Your task to perform on an android device: delete a single message in the gmail app Image 0: 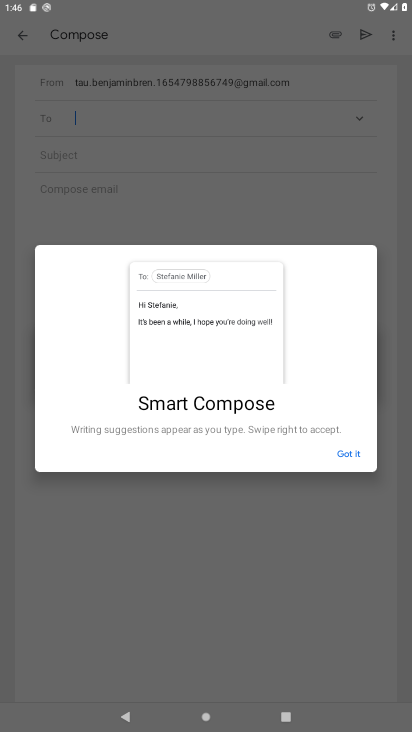
Step 0: press home button
Your task to perform on an android device: delete a single message in the gmail app Image 1: 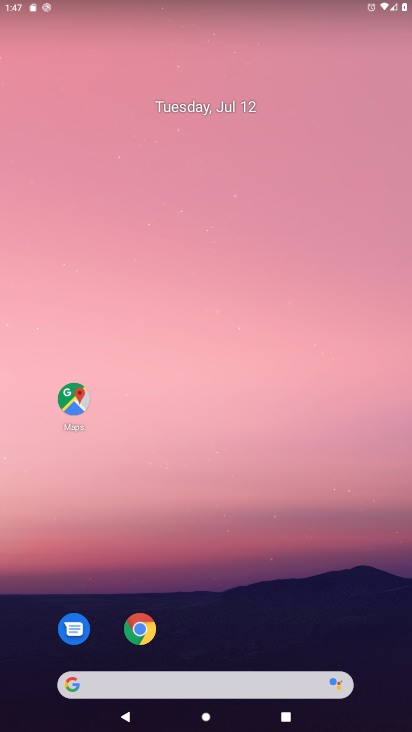
Step 1: drag from (159, 626) to (232, 131)
Your task to perform on an android device: delete a single message in the gmail app Image 2: 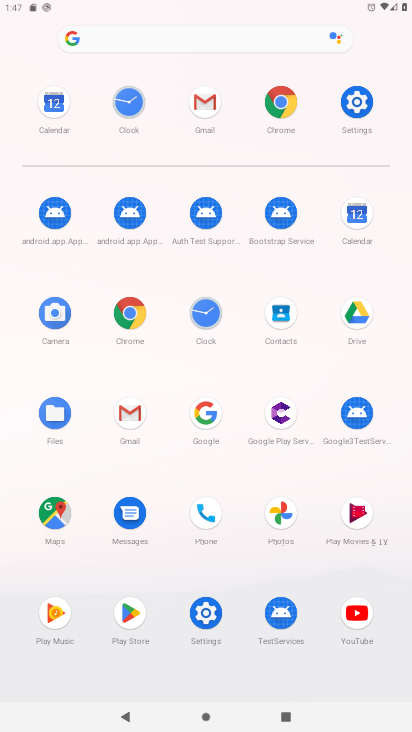
Step 2: click (124, 410)
Your task to perform on an android device: delete a single message in the gmail app Image 3: 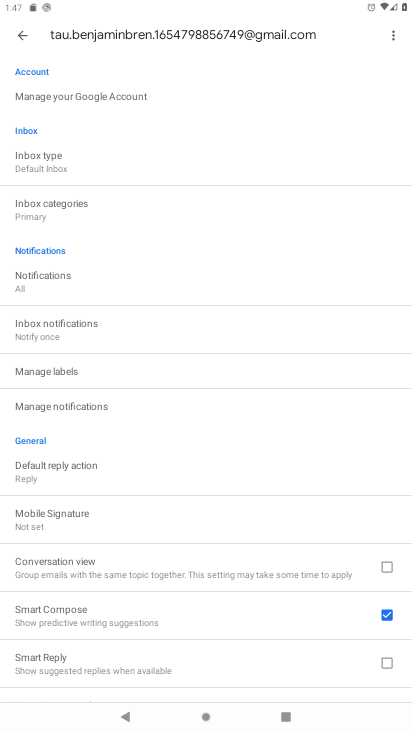
Step 3: press back button
Your task to perform on an android device: delete a single message in the gmail app Image 4: 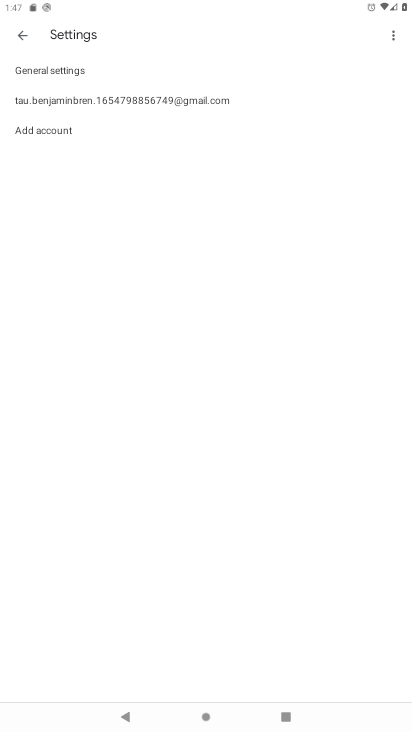
Step 4: press back button
Your task to perform on an android device: delete a single message in the gmail app Image 5: 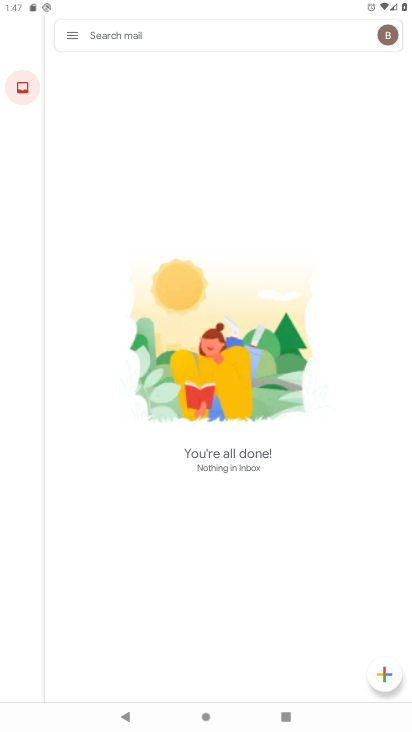
Step 5: click (69, 28)
Your task to perform on an android device: delete a single message in the gmail app Image 6: 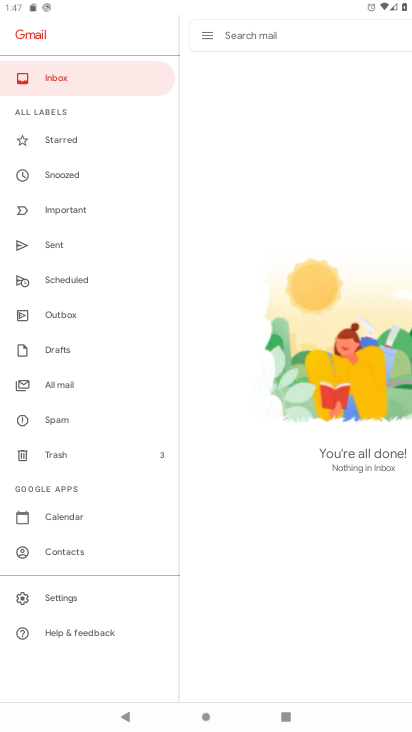
Step 6: task complete